Your task to perform on an android device: empty trash in google photos Image 0: 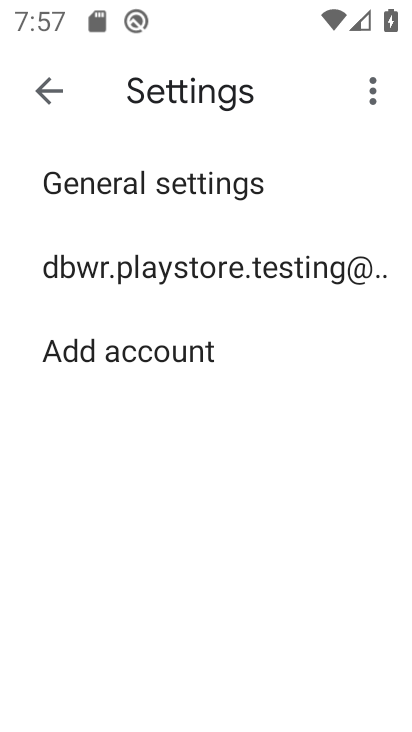
Step 0: press home button
Your task to perform on an android device: empty trash in google photos Image 1: 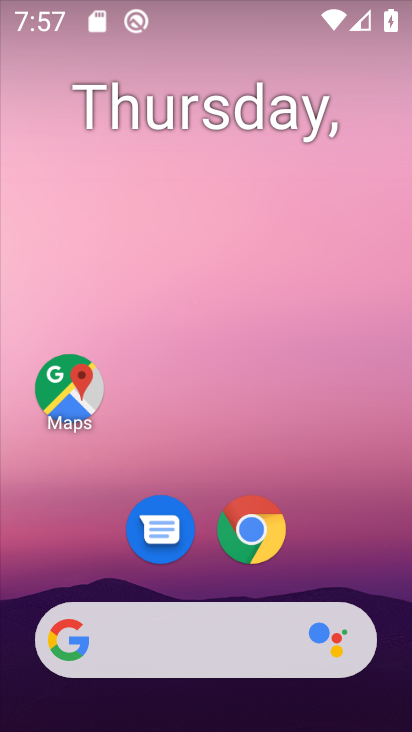
Step 1: drag from (203, 625) to (374, 126)
Your task to perform on an android device: empty trash in google photos Image 2: 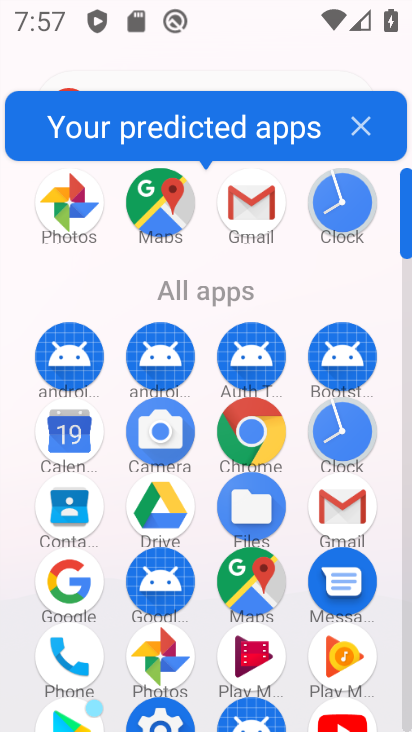
Step 2: click (73, 205)
Your task to perform on an android device: empty trash in google photos Image 3: 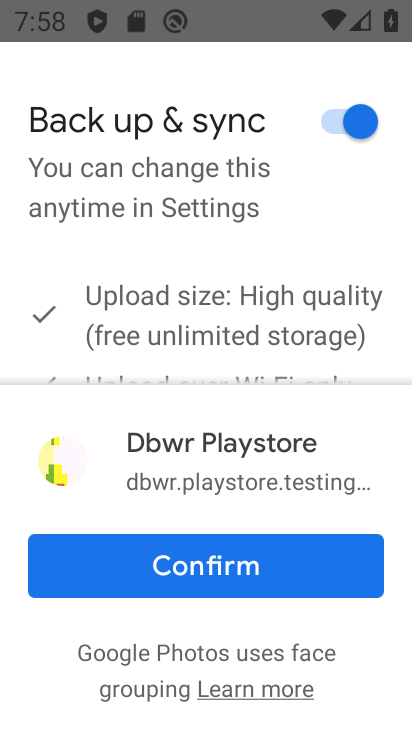
Step 3: click (203, 563)
Your task to perform on an android device: empty trash in google photos Image 4: 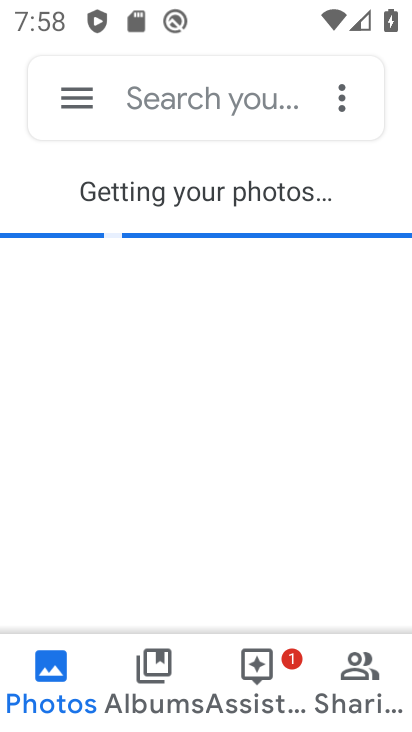
Step 4: click (77, 96)
Your task to perform on an android device: empty trash in google photos Image 5: 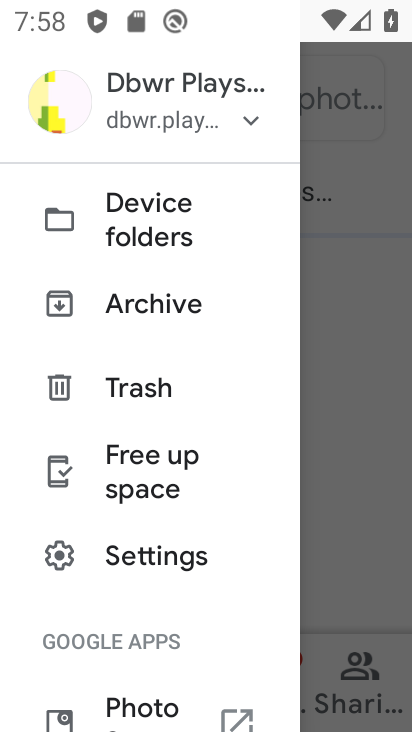
Step 5: click (153, 389)
Your task to perform on an android device: empty trash in google photos Image 6: 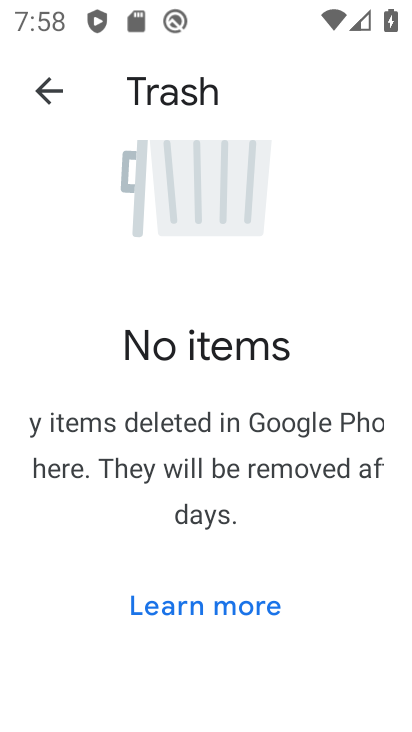
Step 6: task complete